Your task to perform on an android device: open app "Messenger Lite" (install if not already installed) Image 0: 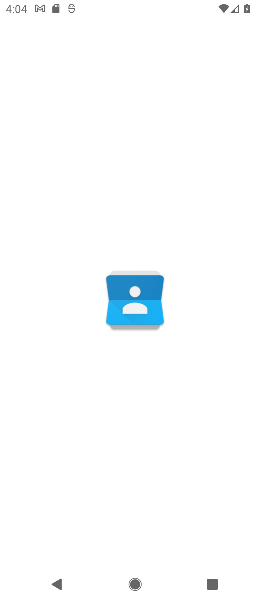
Step 0: press home button
Your task to perform on an android device: open app "Messenger Lite" (install if not already installed) Image 1: 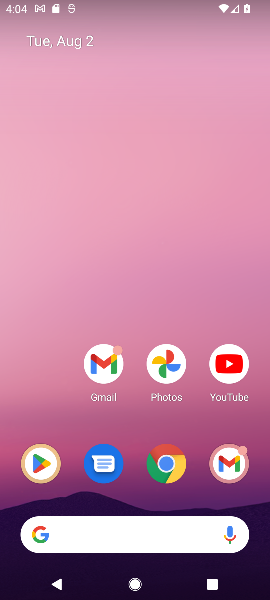
Step 1: click (39, 469)
Your task to perform on an android device: open app "Messenger Lite" (install if not already installed) Image 2: 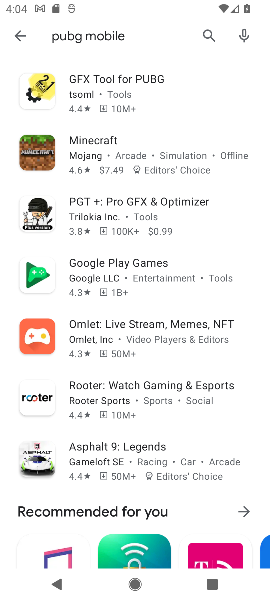
Step 2: click (207, 31)
Your task to perform on an android device: open app "Messenger Lite" (install if not already installed) Image 3: 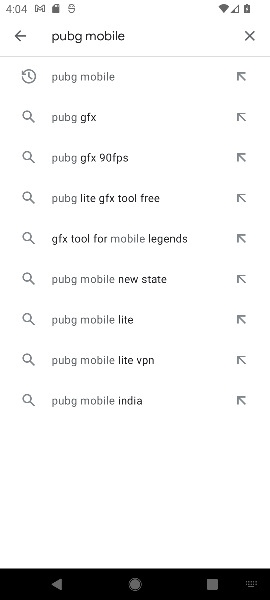
Step 3: click (247, 39)
Your task to perform on an android device: open app "Messenger Lite" (install if not already installed) Image 4: 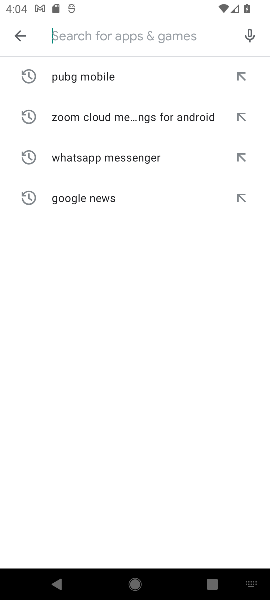
Step 4: type "Messenger Lite"
Your task to perform on an android device: open app "Messenger Lite" (install if not already installed) Image 5: 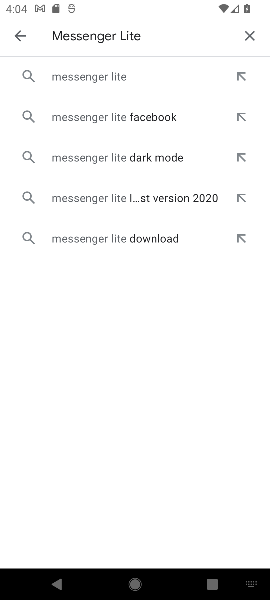
Step 5: click (104, 76)
Your task to perform on an android device: open app "Messenger Lite" (install if not already installed) Image 6: 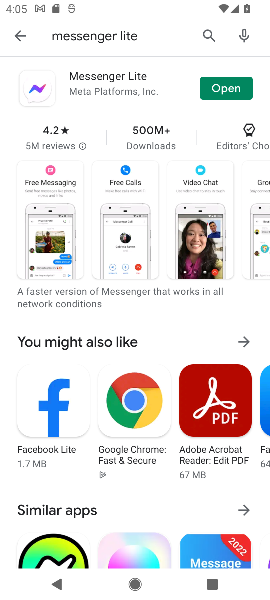
Step 6: click (228, 91)
Your task to perform on an android device: open app "Messenger Lite" (install if not already installed) Image 7: 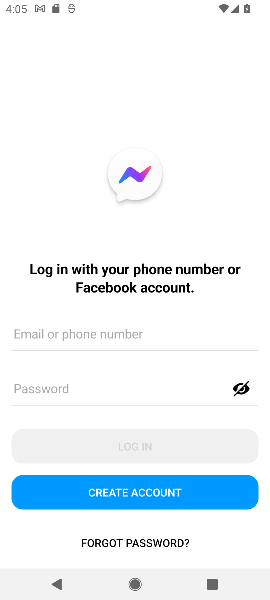
Step 7: task complete